Your task to perform on an android device: open app "Adobe Acrobat Reader" (install if not already installed), go to login, and select forgot password Image 0: 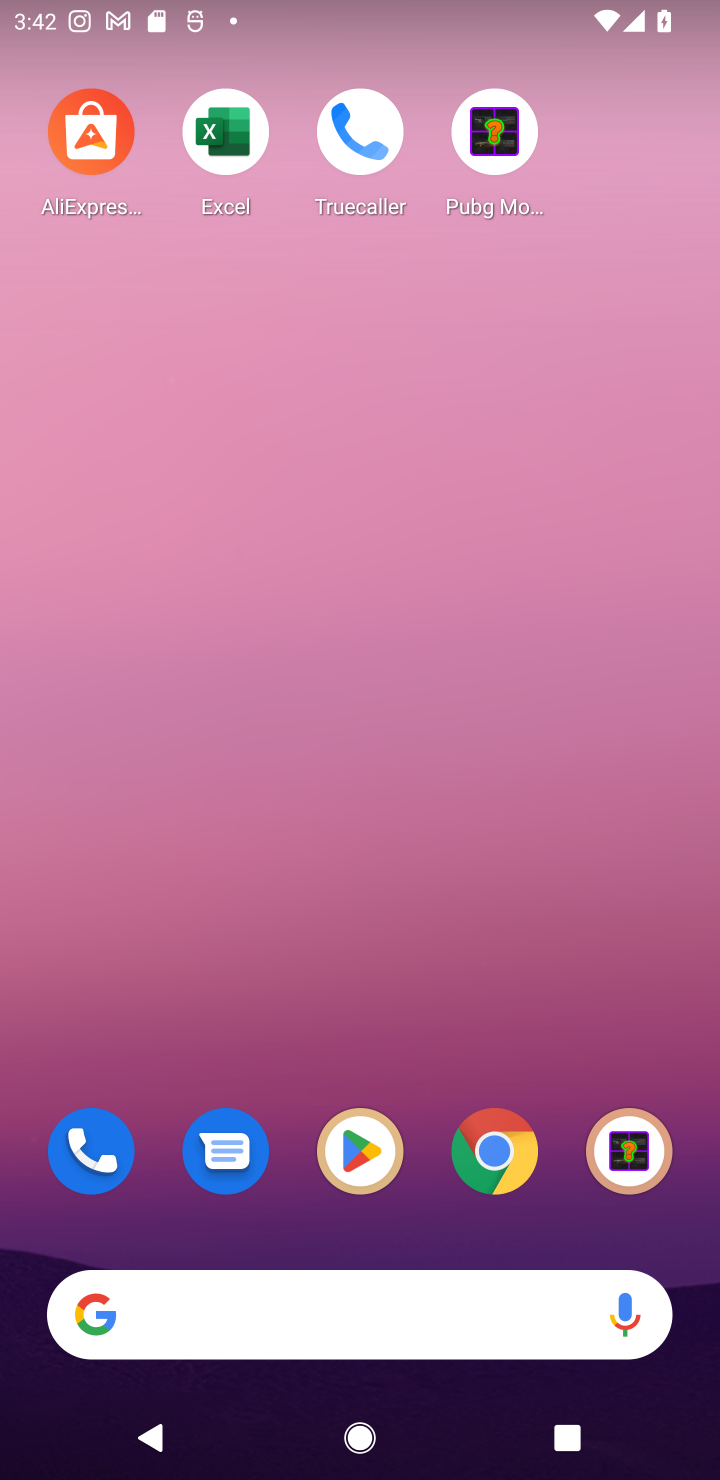
Step 0: press home button
Your task to perform on an android device: open app "Adobe Acrobat Reader" (install if not already installed), go to login, and select forgot password Image 1: 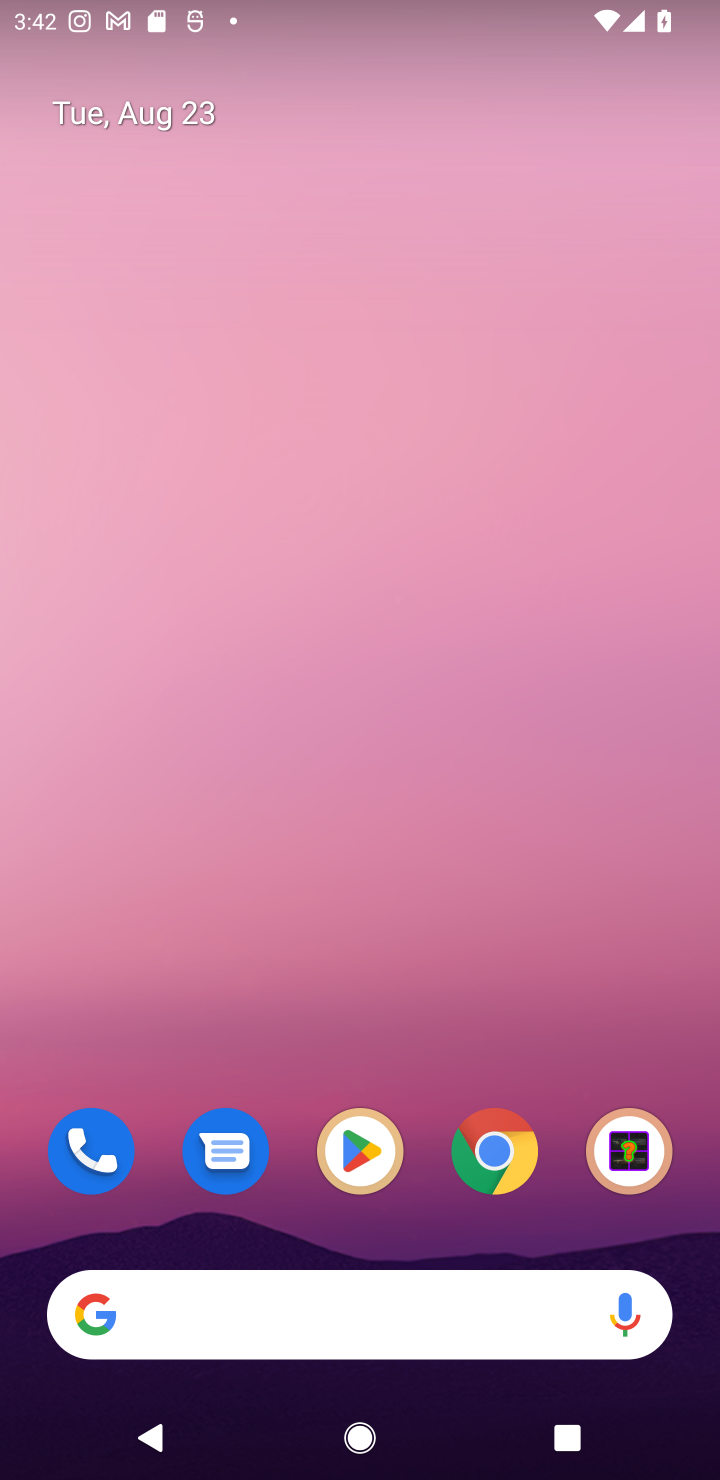
Step 1: click (359, 1149)
Your task to perform on an android device: open app "Adobe Acrobat Reader" (install if not already installed), go to login, and select forgot password Image 2: 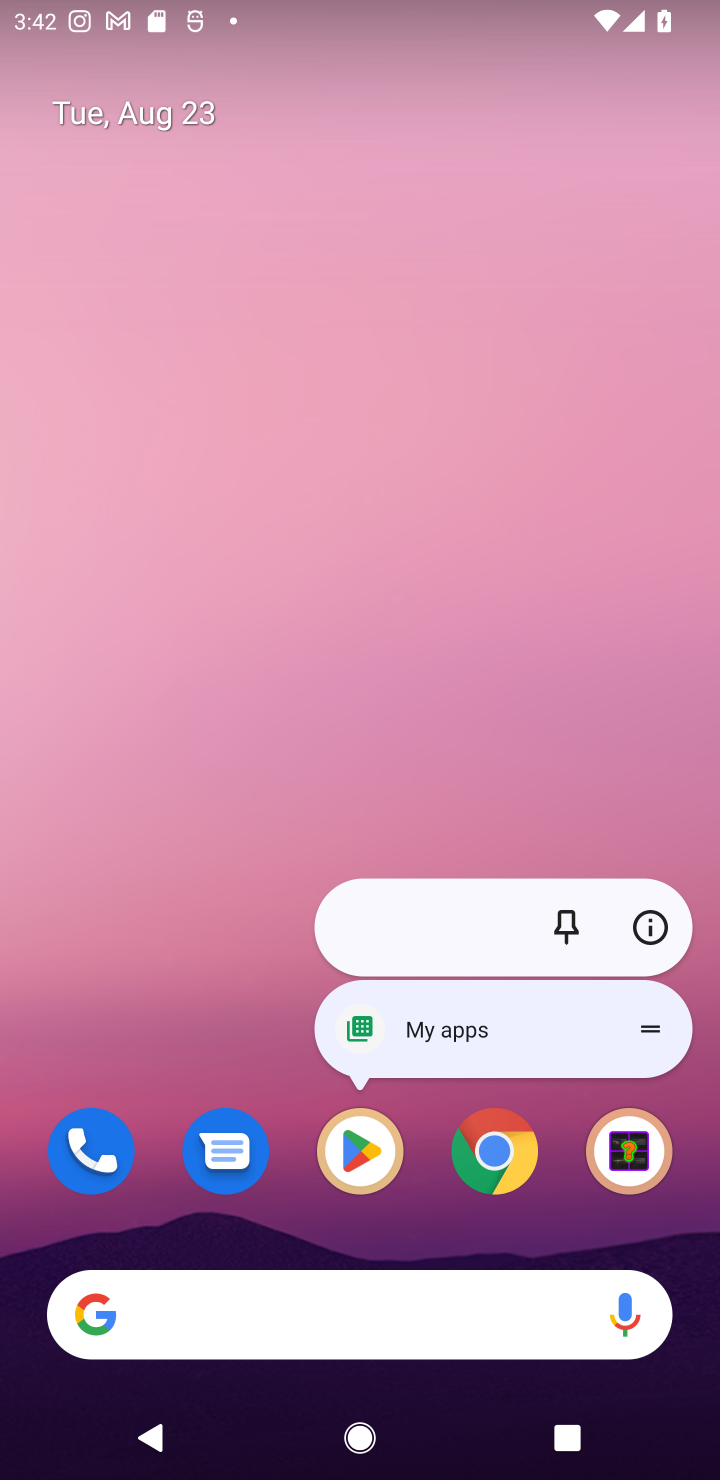
Step 2: click (359, 1160)
Your task to perform on an android device: open app "Adobe Acrobat Reader" (install if not already installed), go to login, and select forgot password Image 3: 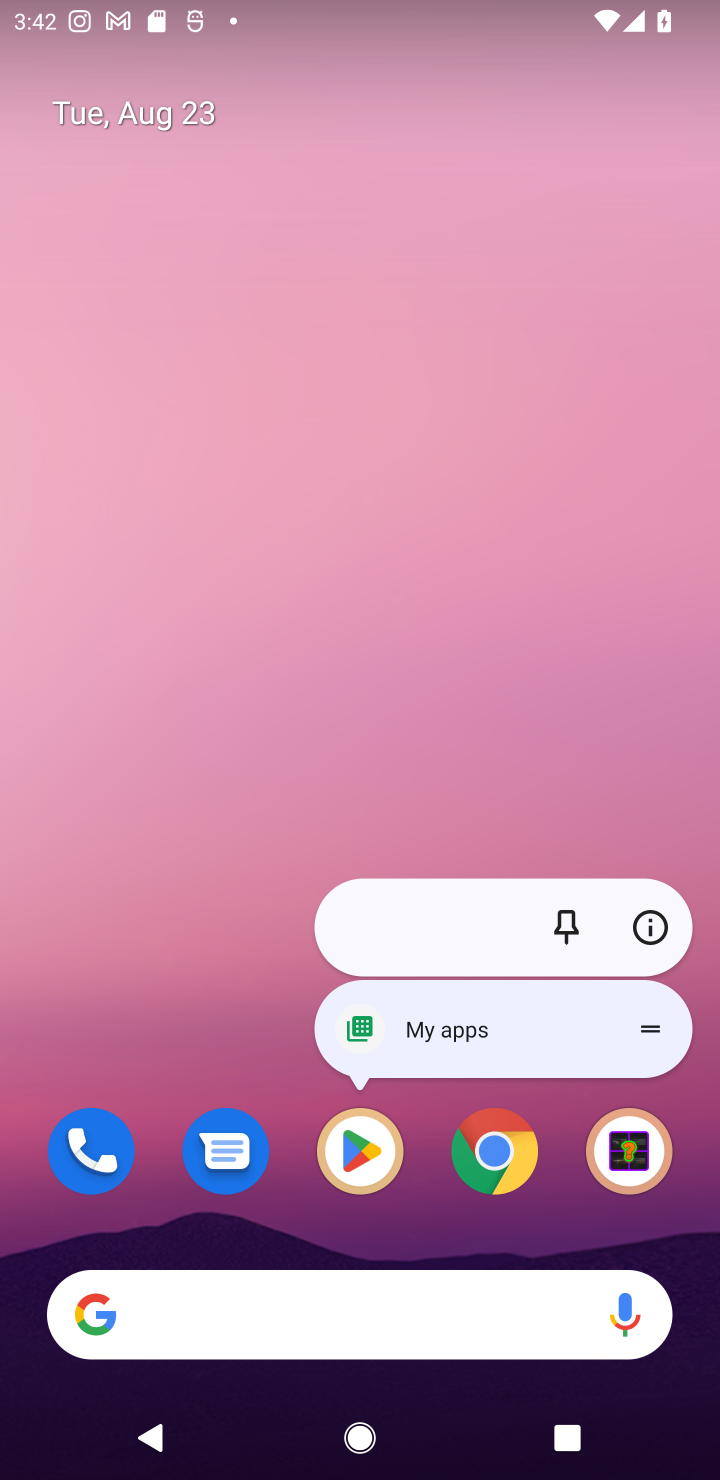
Step 3: click (359, 1160)
Your task to perform on an android device: open app "Adobe Acrobat Reader" (install if not already installed), go to login, and select forgot password Image 4: 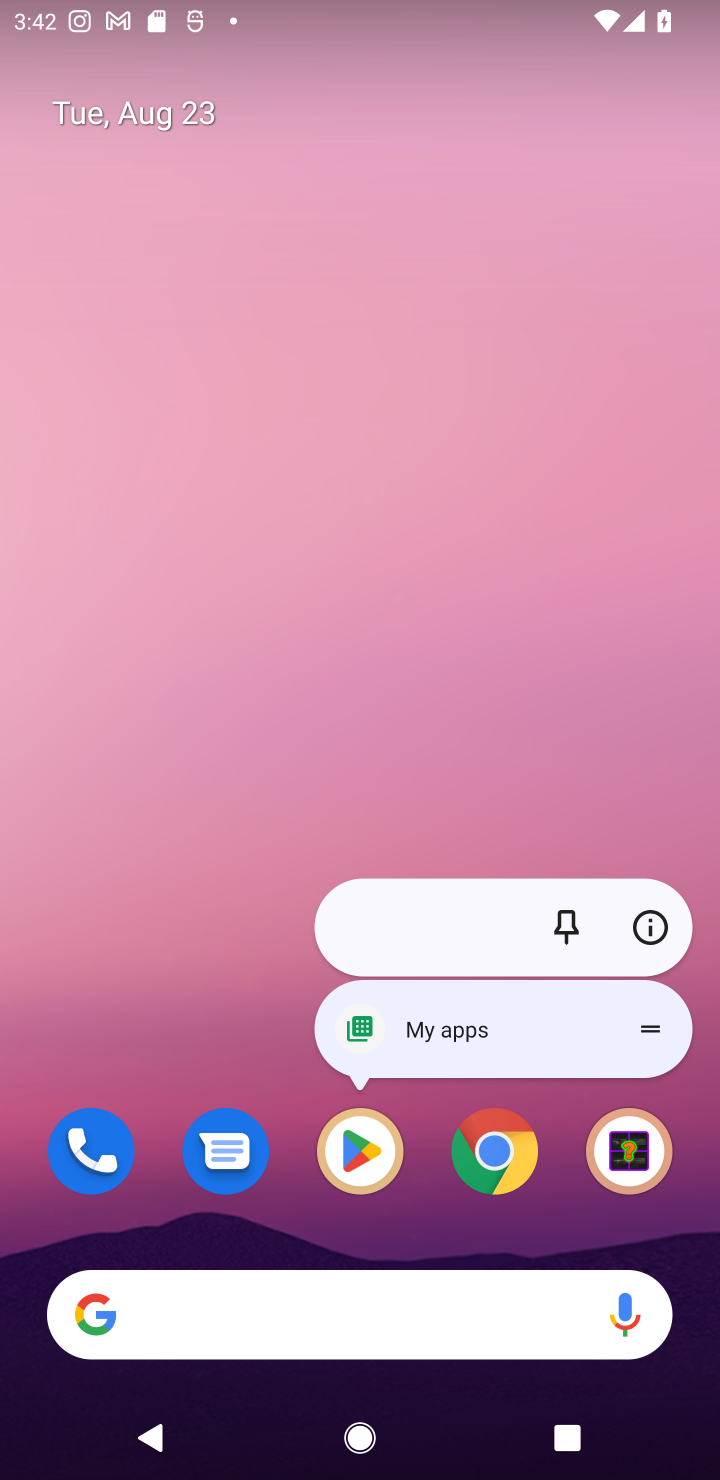
Step 4: click (359, 1157)
Your task to perform on an android device: open app "Adobe Acrobat Reader" (install if not already installed), go to login, and select forgot password Image 5: 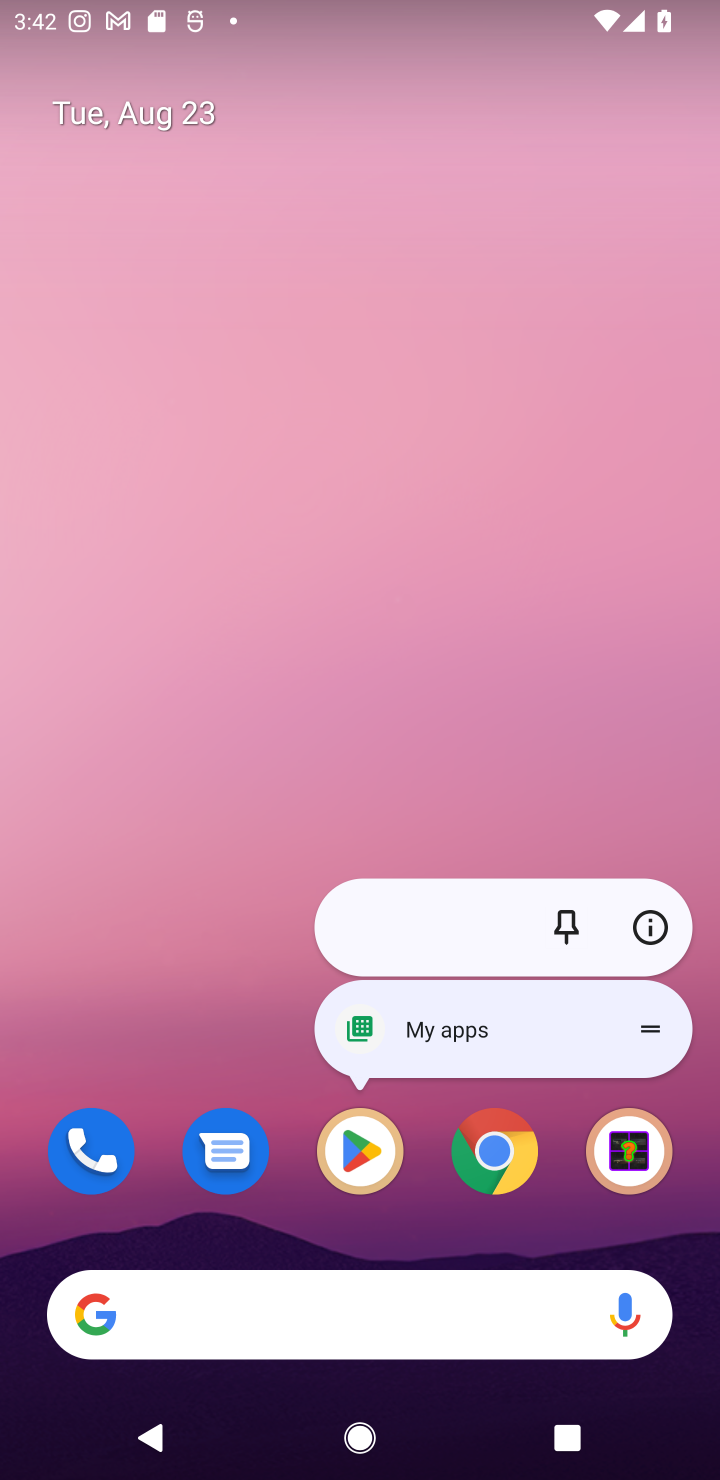
Step 5: click (415, 1106)
Your task to perform on an android device: open app "Adobe Acrobat Reader" (install if not already installed), go to login, and select forgot password Image 6: 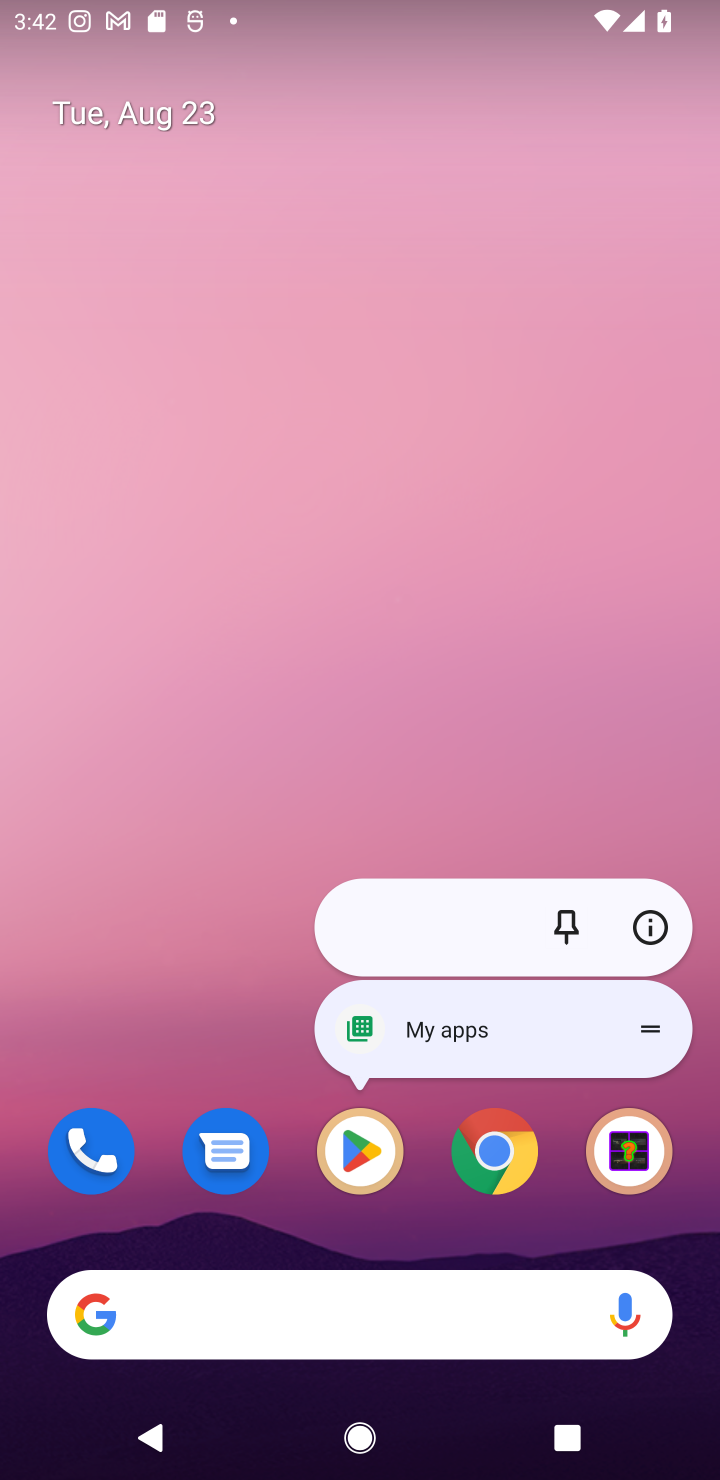
Step 6: click (373, 1138)
Your task to perform on an android device: open app "Adobe Acrobat Reader" (install if not already installed), go to login, and select forgot password Image 7: 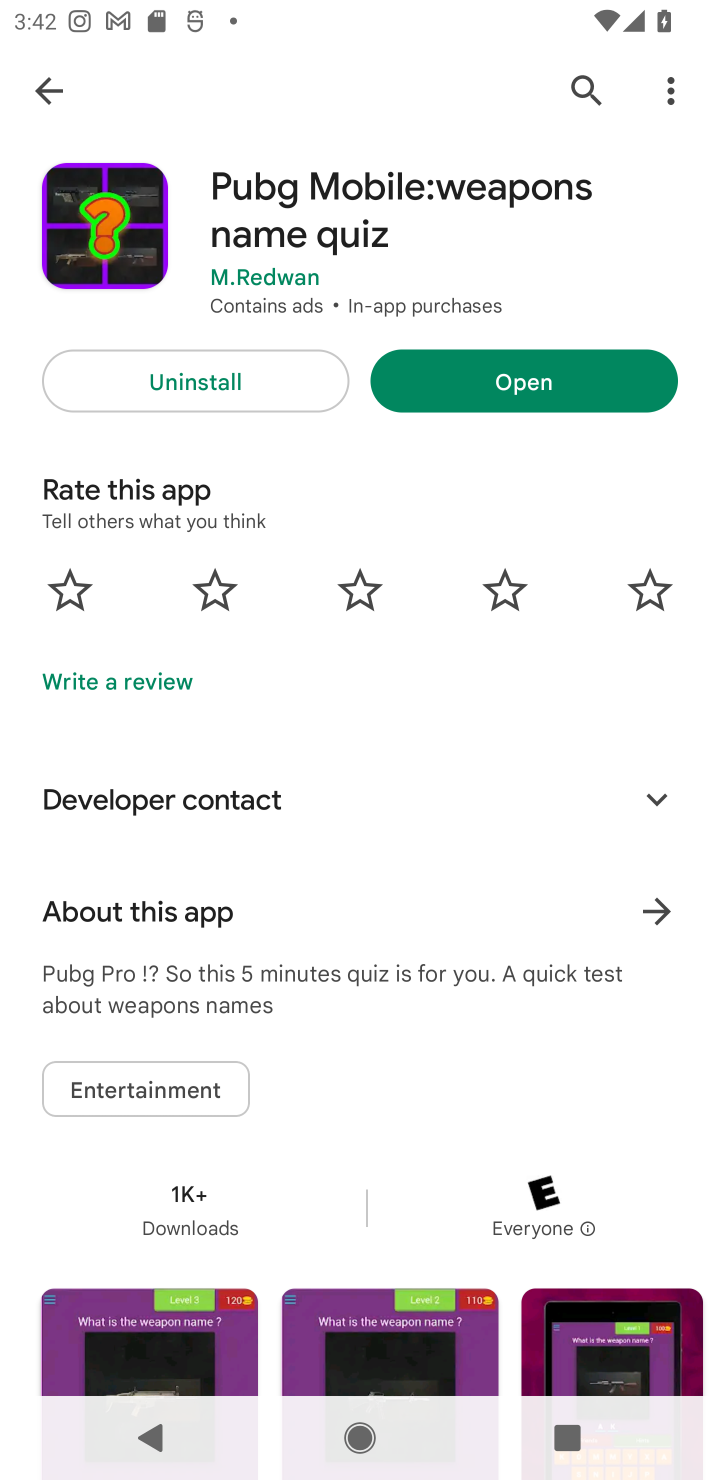
Step 7: click (569, 76)
Your task to perform on an android device: open app "Adobe Acrobat Reader" (install if not already installed), go to login, and select forgot password Image 8: 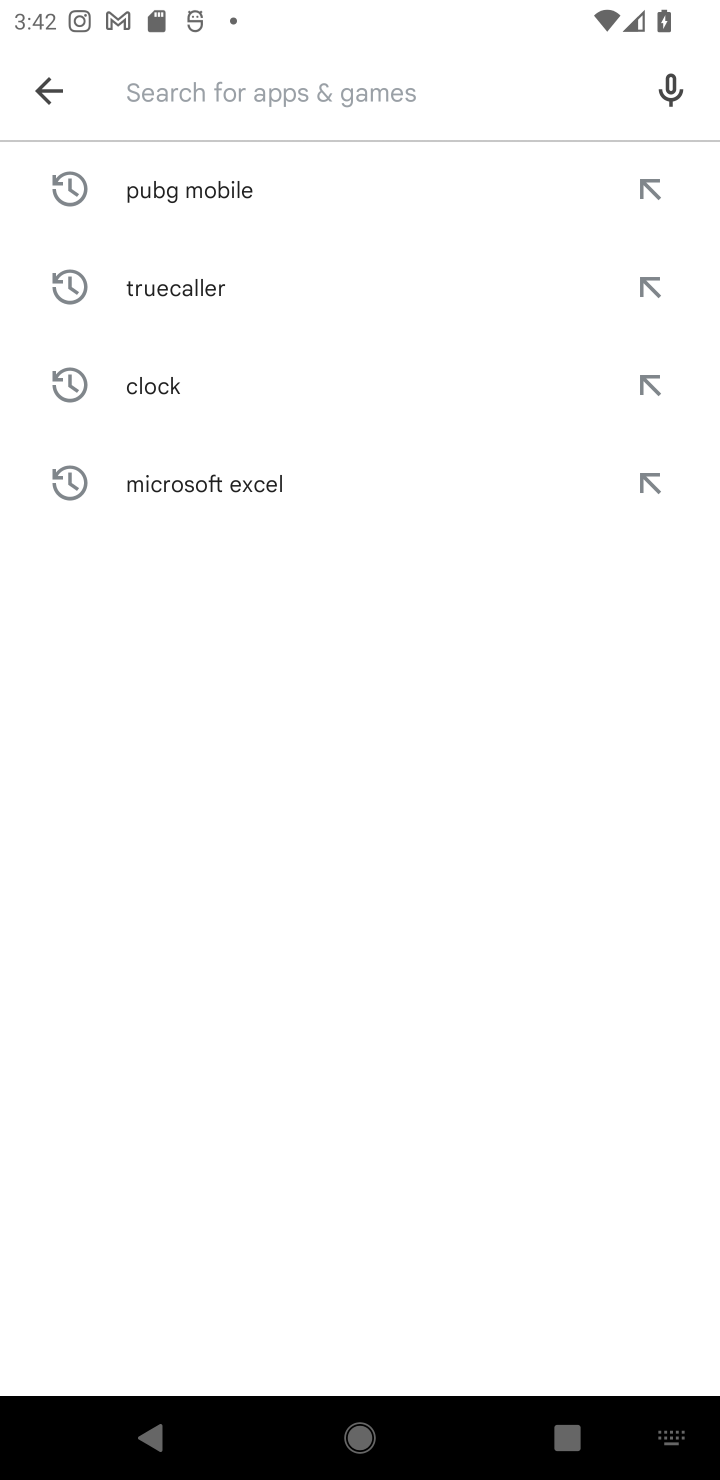
Step 8: type "Adobe Acrobat Reader"
Your task to perform on an android device: open app "Adobe Acrobat Reader" (install if not already installed), go to login, and select forgot password Image 9: 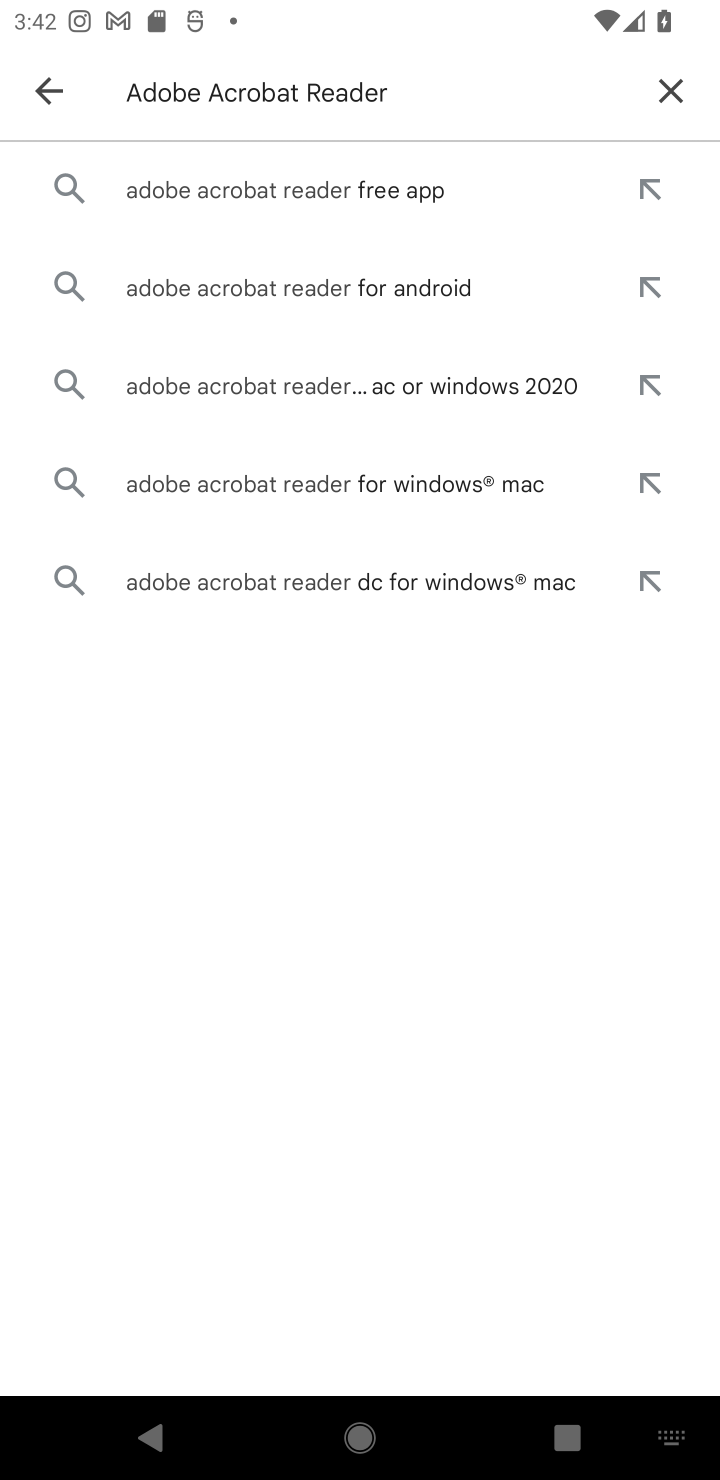
Step 9: click (245, 187)
Your task to perform on an android device: open app "Adobe Acrobat Reader" (install if not already installed), go to login, and select forgot password Image 10: 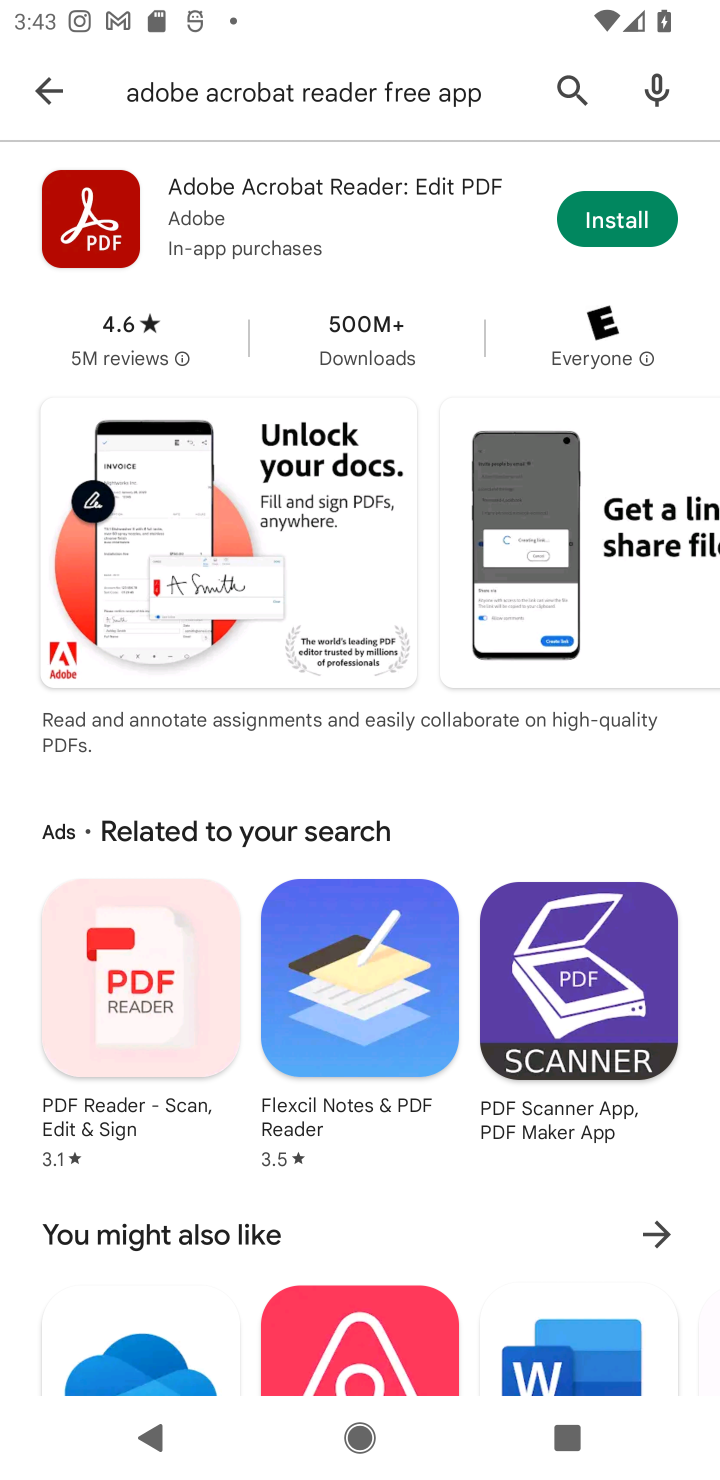
Step 10: click (590, 207)
Your task to perform on an android device: open app "Adobe Acrobat Reader" (install if not already installed), go to login, and select forgot password Image 11: 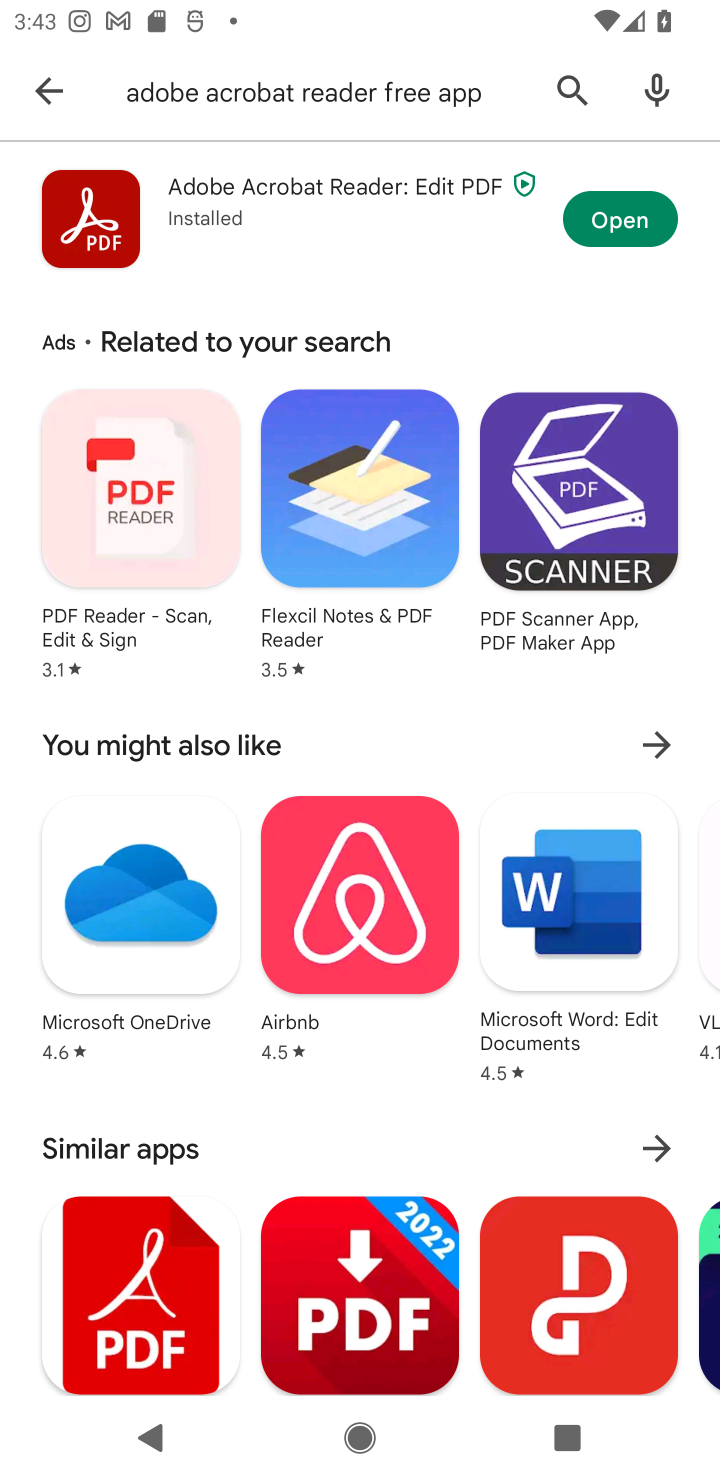
Step 11: click (606, 235)
Your task to perform on an android device: open app "Adobe Acrobat Reader" (install if not already installed), go to login, and select forgot password Image 12: 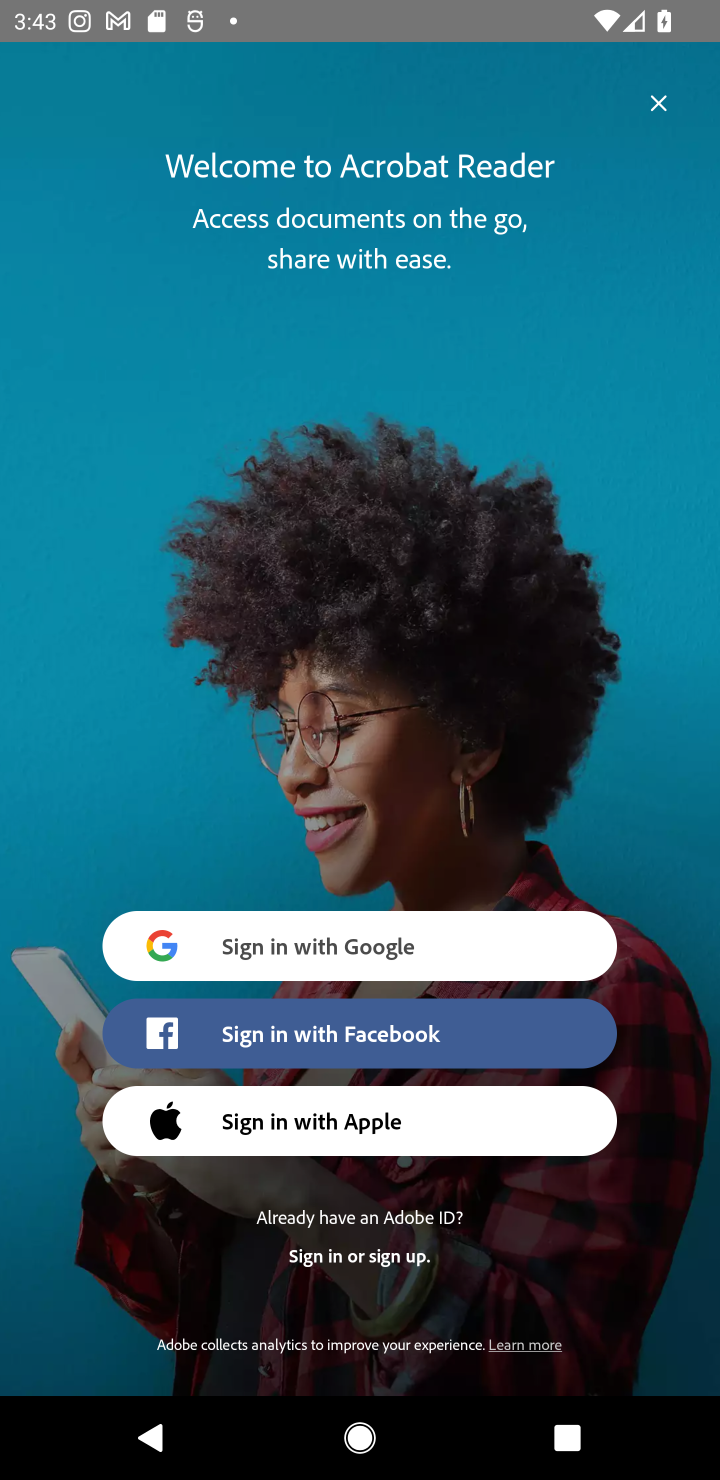
Step 12: click (322, 1251)
Your task to perform on an android device: open app "Adobe Acrobat Reader" (install if not already installed), go to login, and select forgot password Image 13: 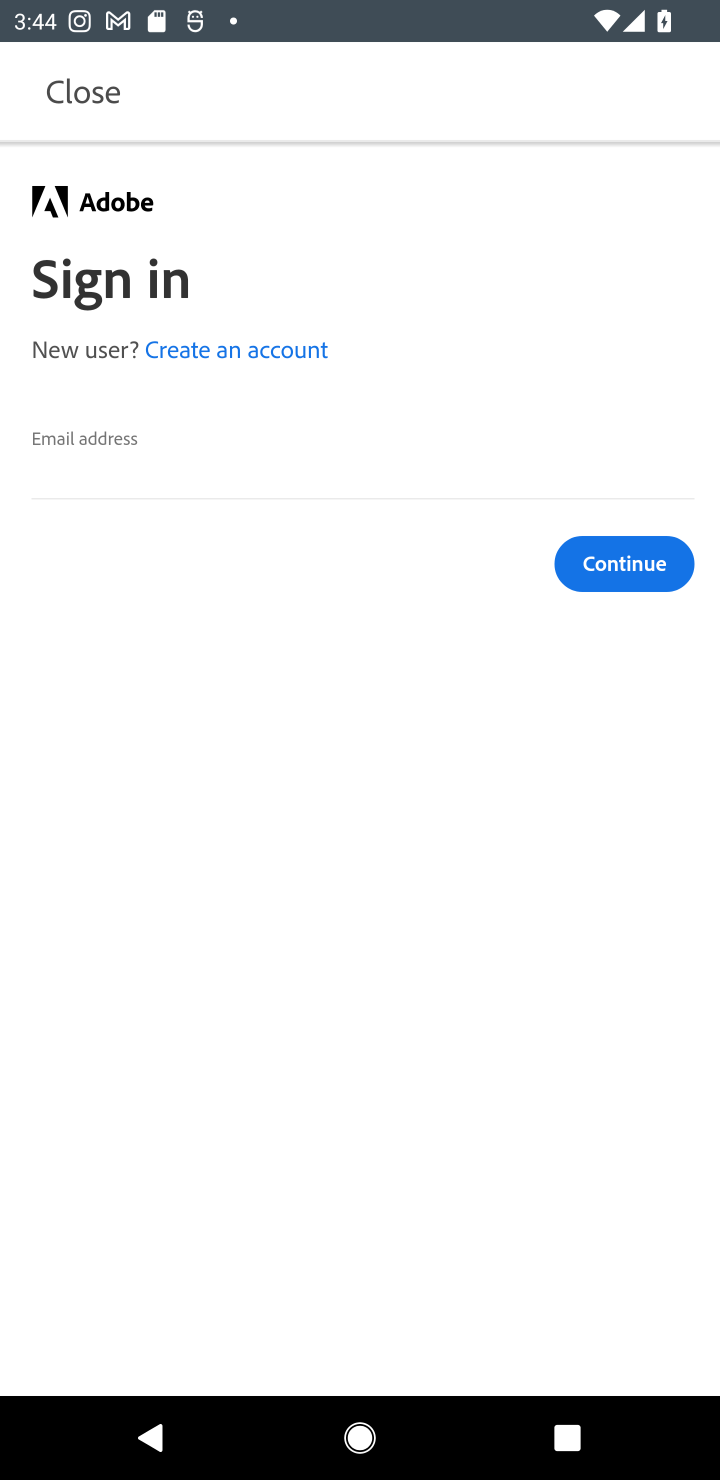
Step 13: task complete